Your task to perform on an android device: clear history in the chrome app Image 0: 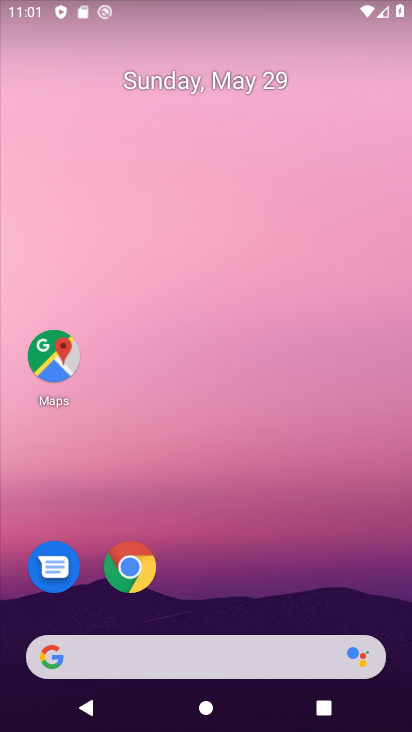
Step 0: drag from (238, 610) to (225, 8)
Your task to perform on an android device: clear history in the chrome app Image 1: 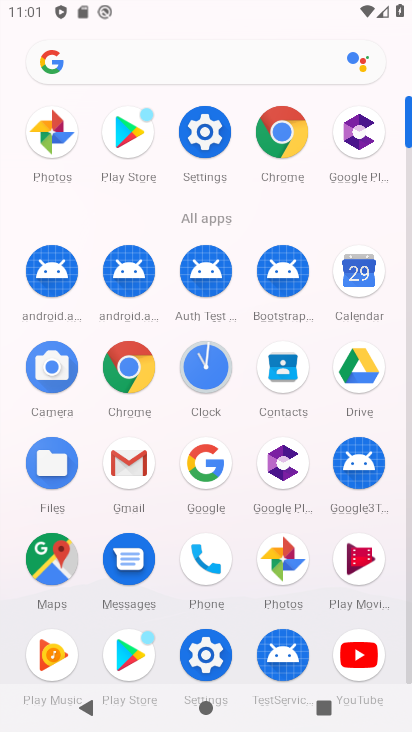
Step 1: click (297, 130)
Your task to perform on an android device: clear history in the chrome app Image 2: 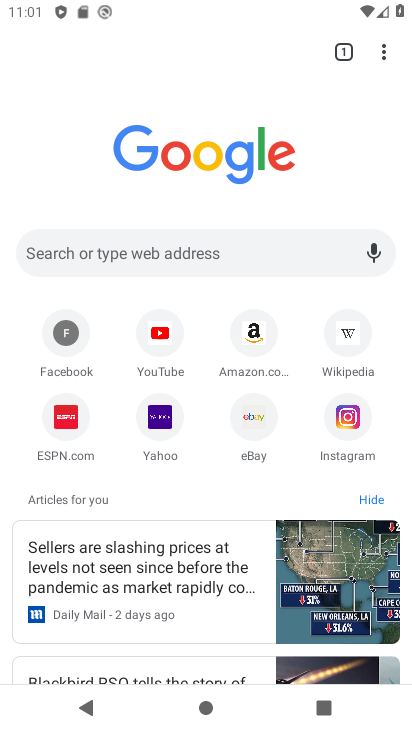
Step 2: task complete